Your task to perform on an android device: Open my contact list Image 0: 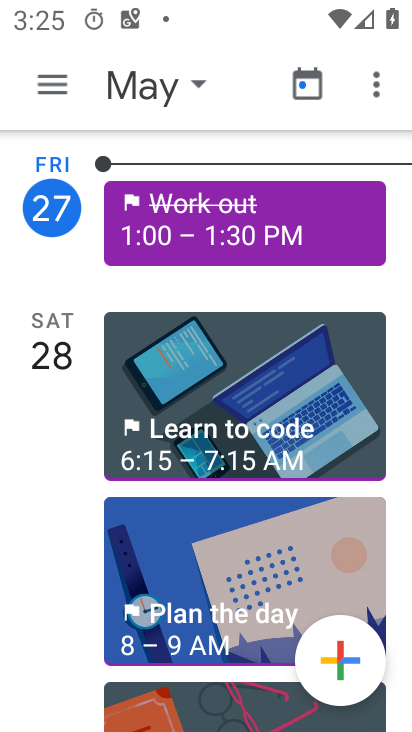
Step 0: press home button
Your task to perform on an android device: Open my contact list Image 1: 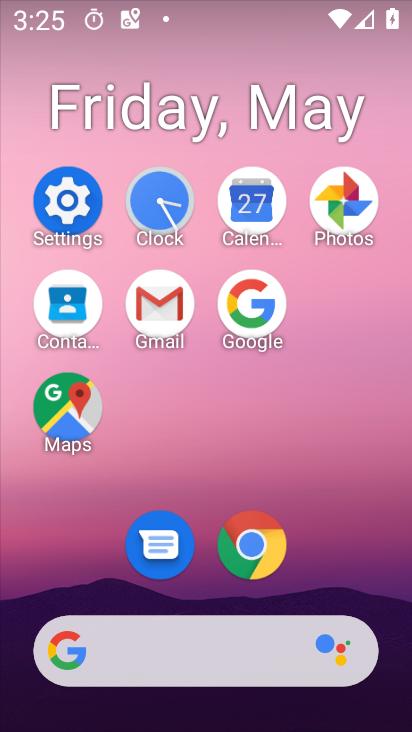
Step 1: click (64, 303)
Your task to perform on an android device: Open my contact list Image 2: 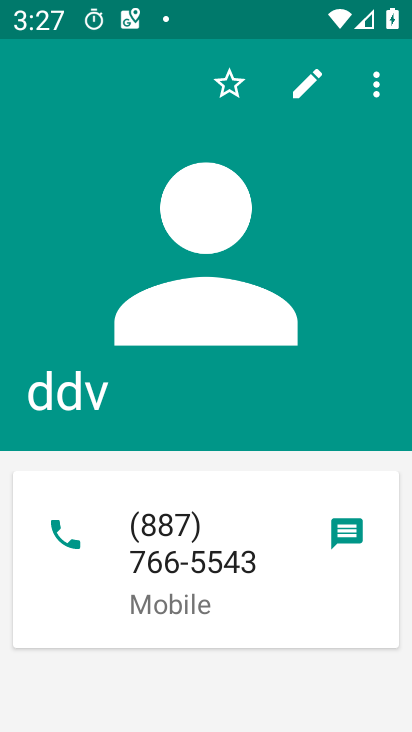
Step 2: task complete